Your task to perform on an android device: check data usage Image 0: 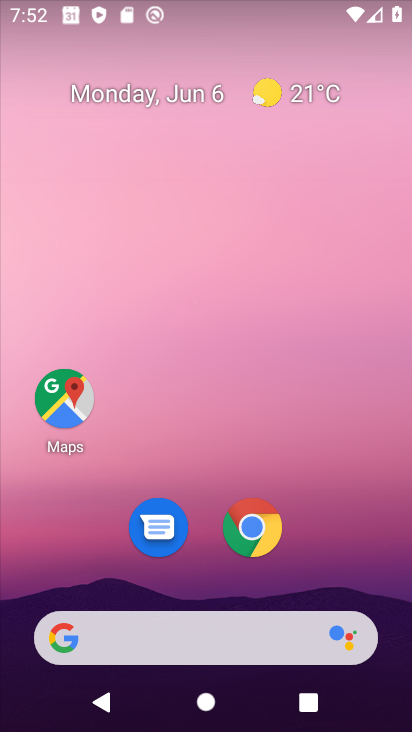
Step 0: drag from (187, 543) to (240, 245)
Your task to perform on an android device: check data usage Image 1: 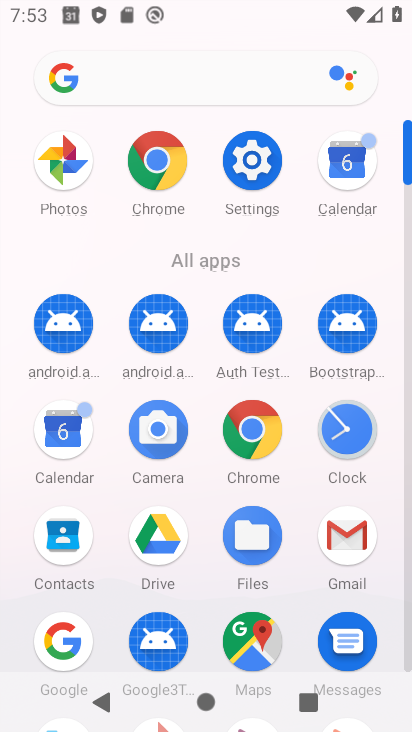
Step 1: click (241, 177)
Your task to perform on an android device: check data usage Image 2: 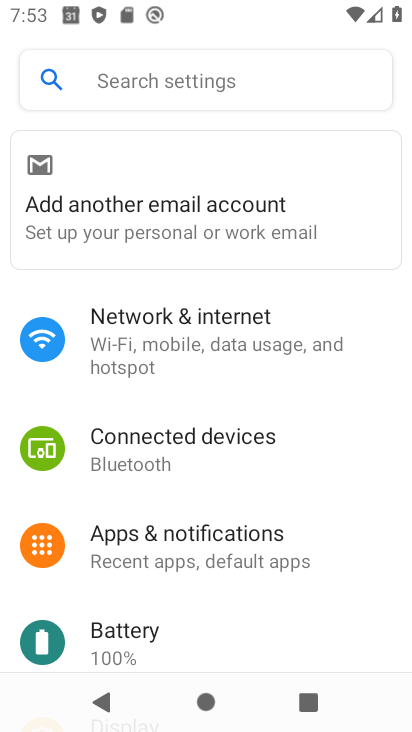
Step 2: click (188, 353)
Your task to perform on an android device: check data usage Image 3: 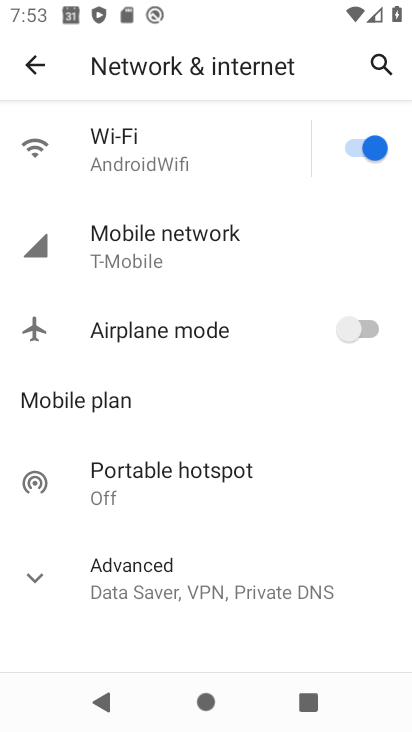
Step 3: click (204, 236)
Your task to perform on an android device: check data usage Image 4: 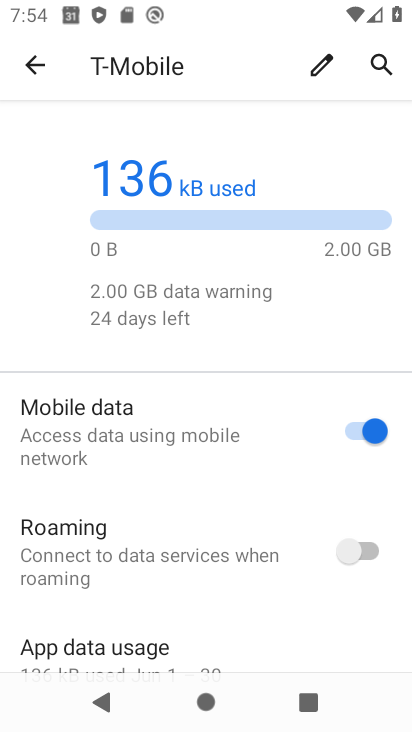
Step 4: drag from (173, 529) to (186, 51)
Your task to perform on an android device: check data usage Image 5: 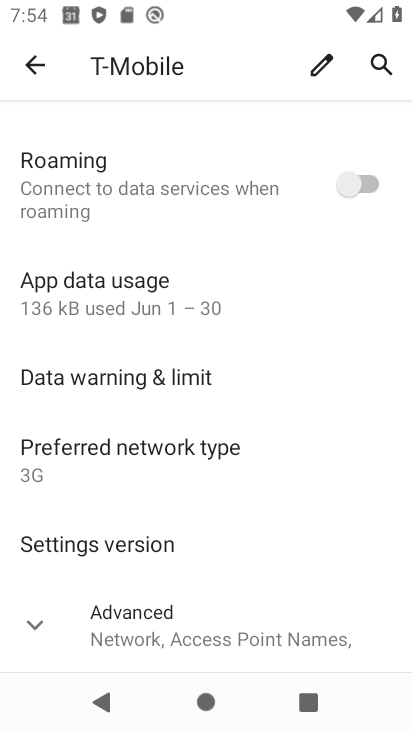
Step 5: click (182, 303)
Your task to perform on an android device: check data usage Image 6: 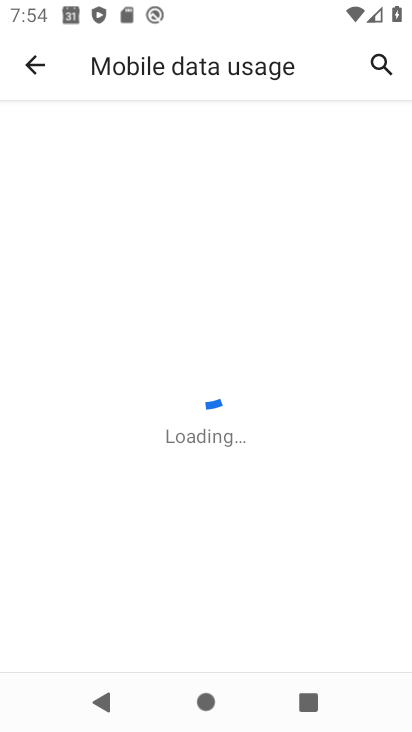
Step 6: task complete